Your task to perform on an android device: allow cookies in the chrome app Image 0: 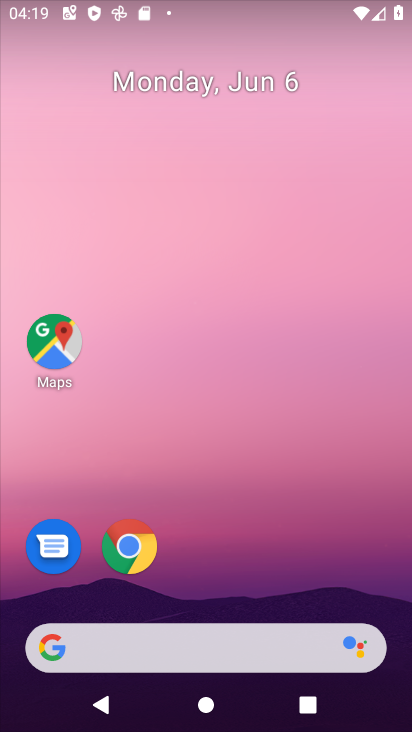
Step 0: click (137, 527)
Your task to perform on an android device: allow cookies in the chrome app Image 1: 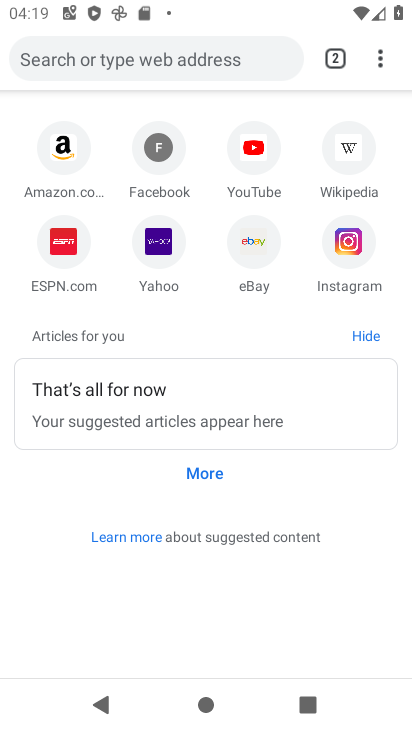
Step 1: task complete